Your task to perform on an android device: visit the assistant section in the google photos Image 0: 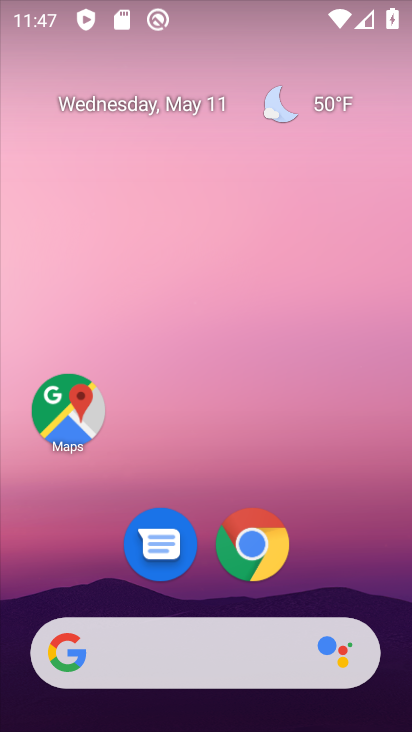
Step 0: drag from (209, 658) to (227, 218)
Your task to perform on an android device: visit the assistant section in the google photos Image 1: 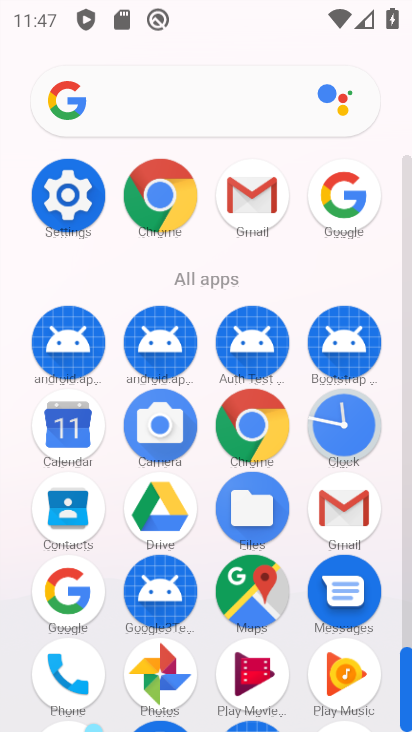
Step 1: click (176, 669)
Your task to perform on an android device: visit the assistant section in the google photos Image 2: 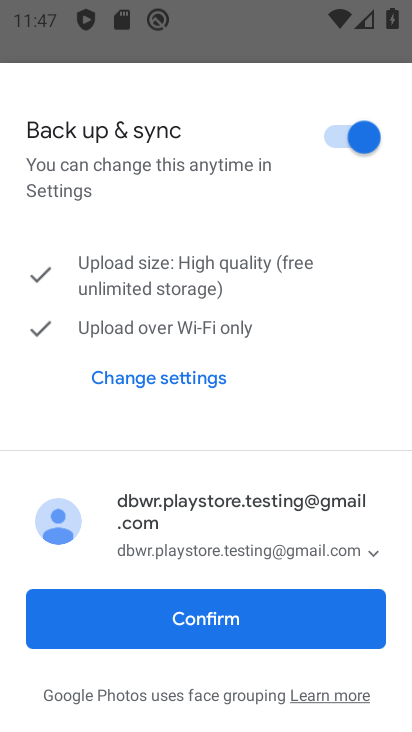
Step 2: click (207, 645)
Your task to perform on an android device: visit the assistant section in the google photos Image 3: 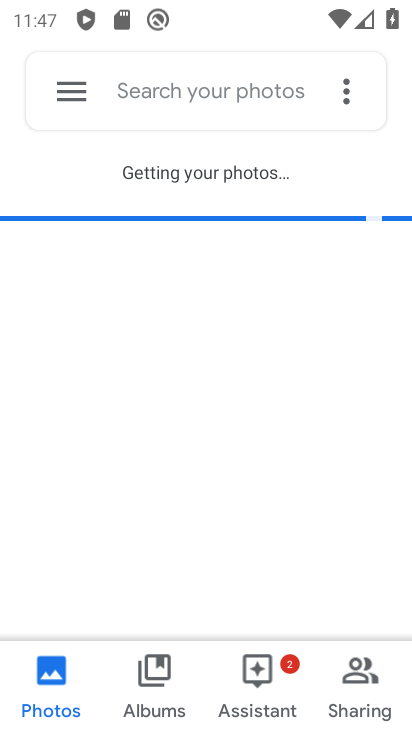
Step 3: click (245, 683)
Your task to perform on an android device: visit the assistant section in the google photos Image 4: 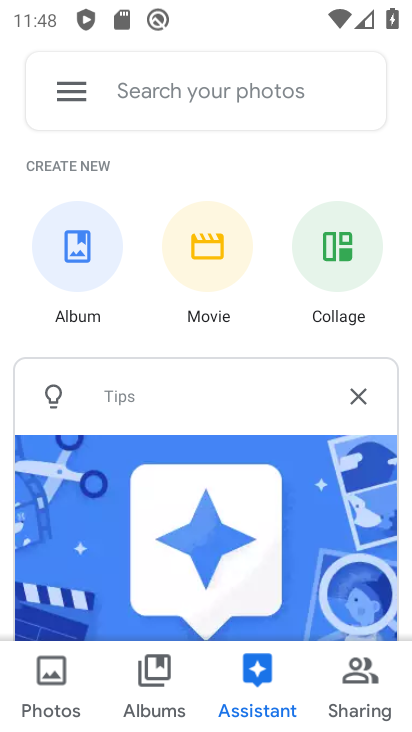
Step 4: task complete